Your task to perform on an android device: Open Google Maps Image 0: 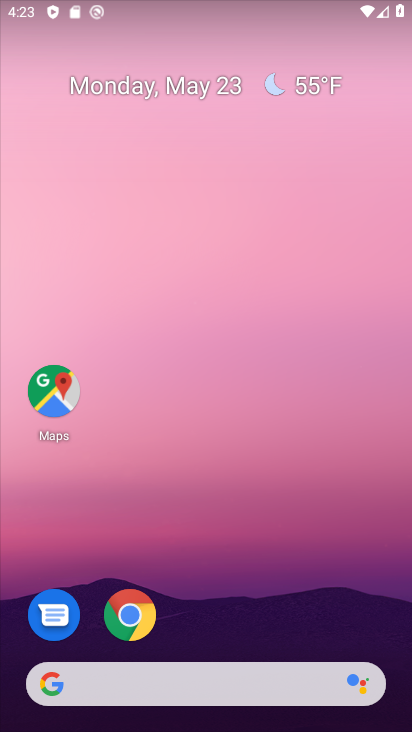
Step 0: drag from (323, 649) to (346, 418)
Your task to perform on an android device: Open Google Maps Image 1: 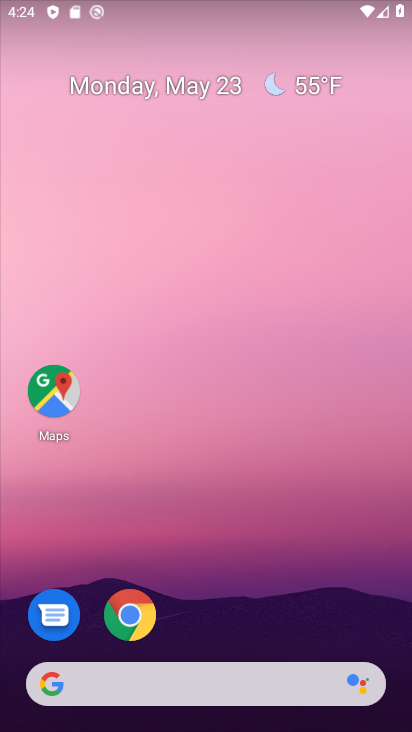
Step 1: drag from (345, 564) to (344, 164)
Your task to perform on an android device: Open Google Maps Image 2: 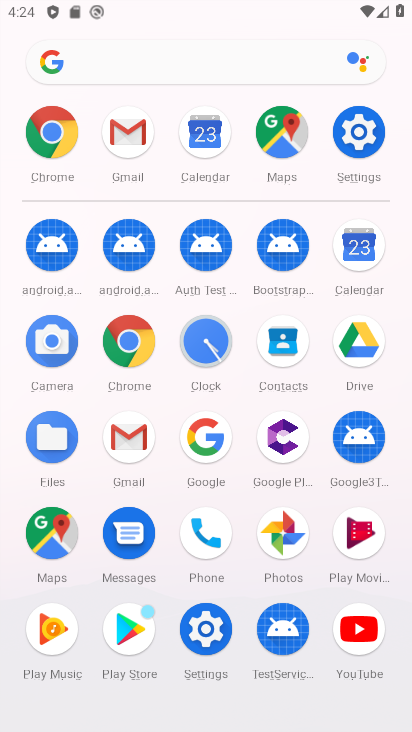
Step 2: click (54, 548)
Your task to perform on an android device: Open Google Maps Image 3: 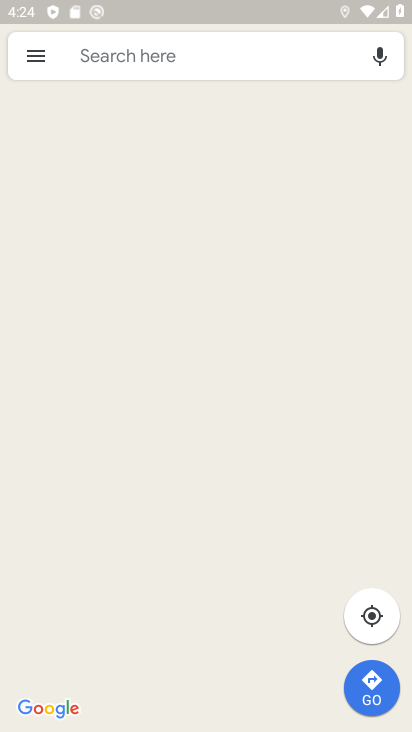
Step 3: task complete